Your task to perform on an android device: When is my next meeting? Image 0: 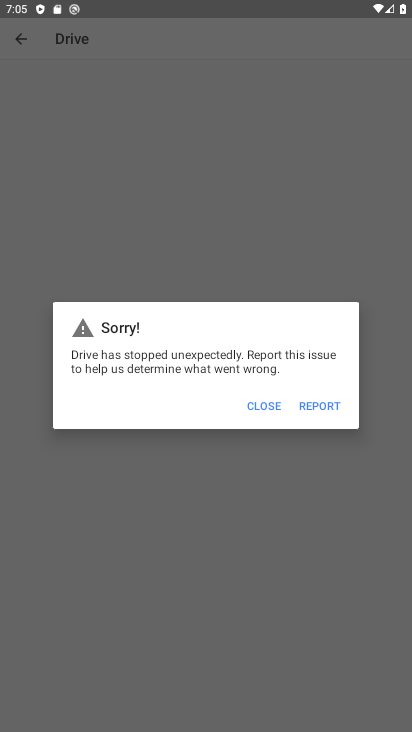
Step 0: press home button
Your task to perform on an android device: When is my next meeting? Image 1: 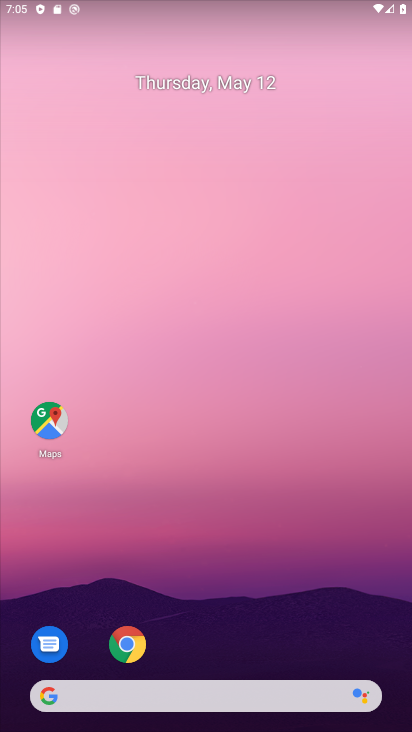
Step 1: drag from (220, 707) to (250, 92)
Your task to perform on an android device: When is my next meeting? Image 2: 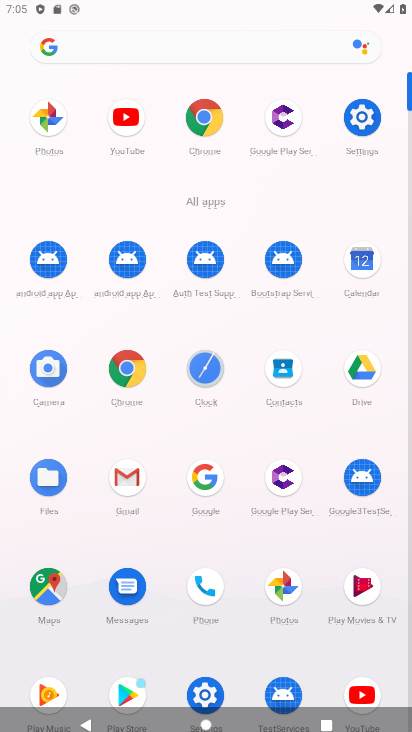
Step 2: click (356, 270)
Your task to perform on an android device: When is my next meeting? Image 3: 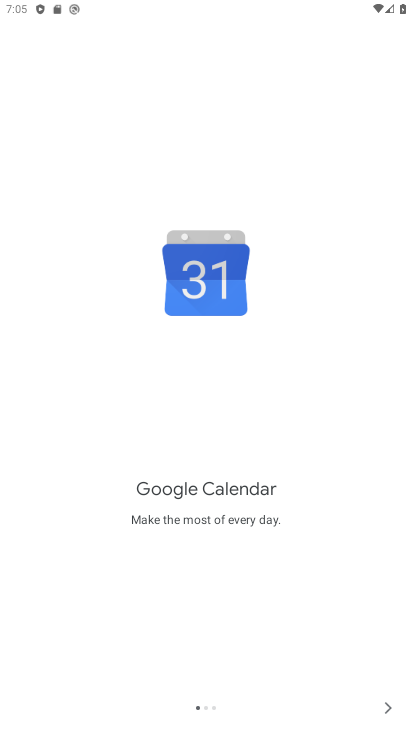
Step 3: click (391, 718)
Your task to perform on an android device: When is my next meeting? Image 4: 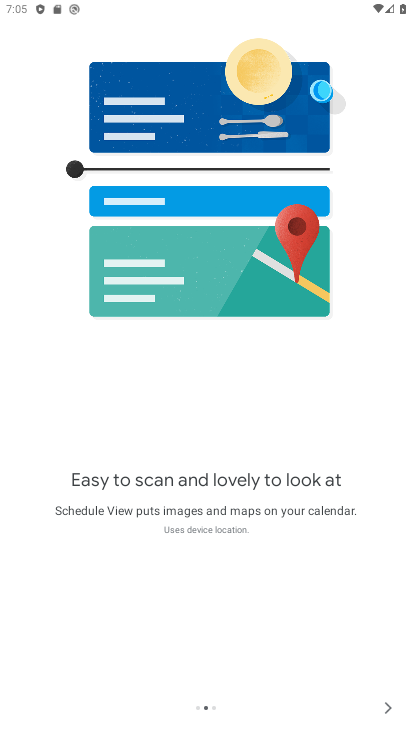
Step 4: click (385, 711)
Your task to perform on an android device: When is my next meeting? Image 5: 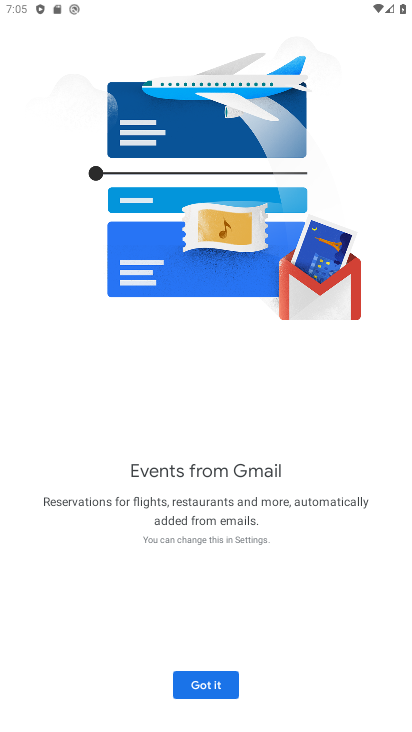
Step 5: click (385, 710)
Your task to perform on an android device: When is my next meeting? Image 6: 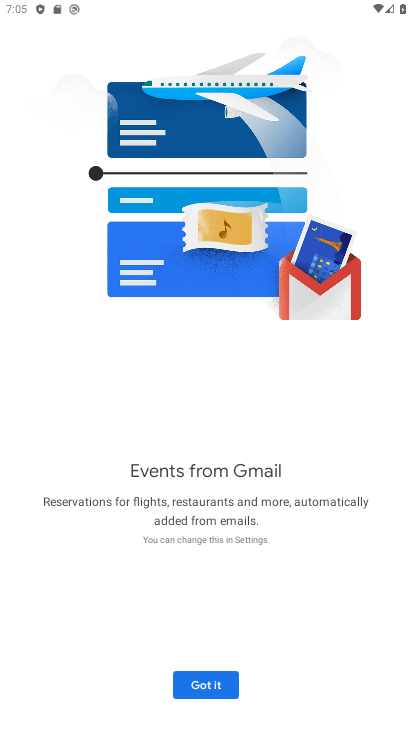
Step 6: click (212, 688)
Your task to perform on an android device: When is my next meeting? Image 7: 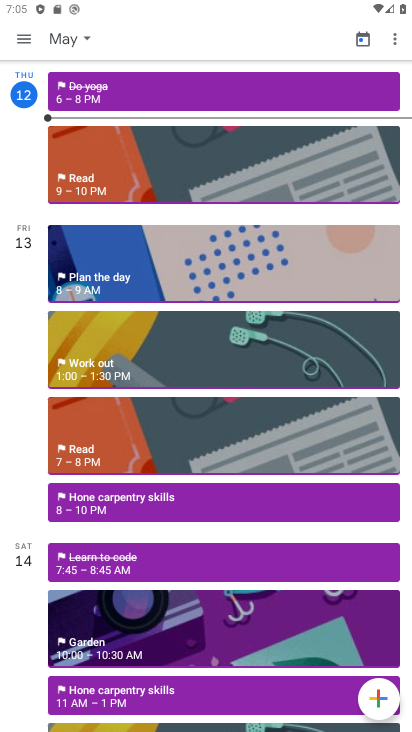
Step 7: task complete